Your task to perform on an android device: toggle data saver in the chrome app Image 0: 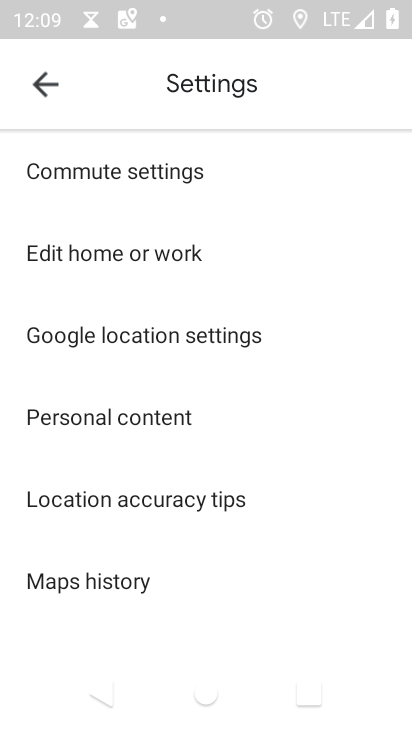
Step 0: press home button
Your task to perform on an android device: toggle data saver in the chrome app Image 1: 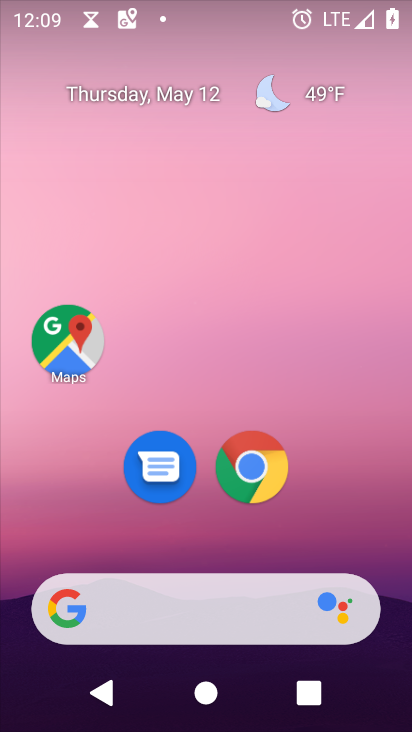
Step 1: drag from (241, 603) to (368, 194)
Your task to perform on an android device: toggle data saver in the chrome app Image 2: 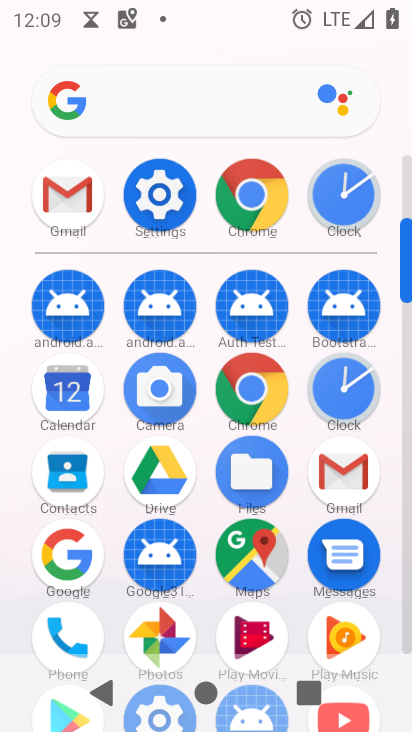
Step 2: click (255, 197)
Your task to perform on an android device: toggle data saver in the chrome app Image 3: 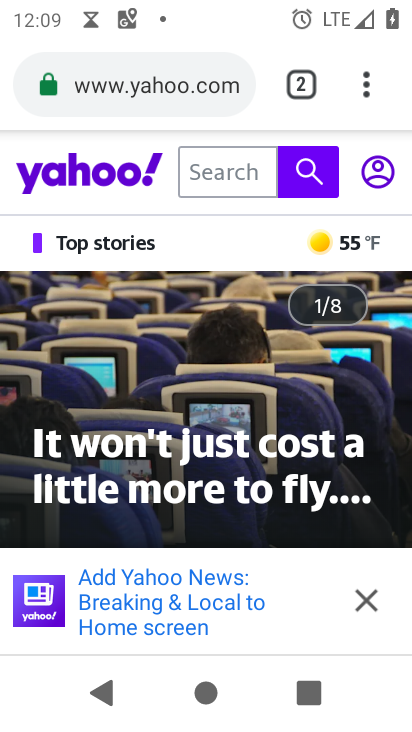
Step 3: click (367, 89)
Your task to perform on an android device: toggle data saver in the chrome app Image 4: 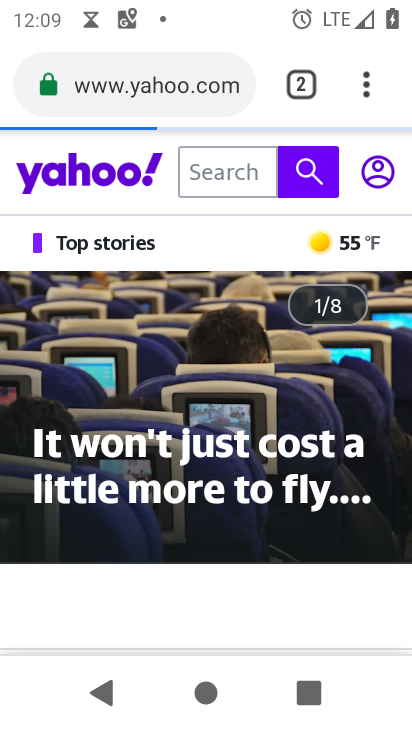
Step 4: drag from (367, 89) to (201, 537)
Your task to perform on an android device: toggle data saver in the chrome app Image 5: 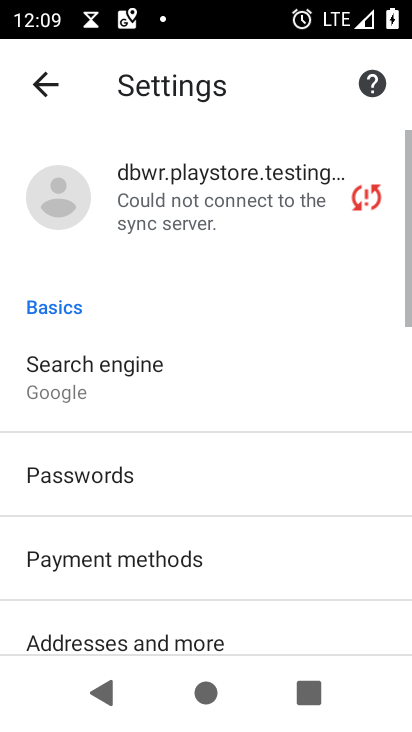
Step 5: drag from (187, 606) to (318, 188)
Your task to perform on an android device: toggle data saver in the chrome app Image 6: 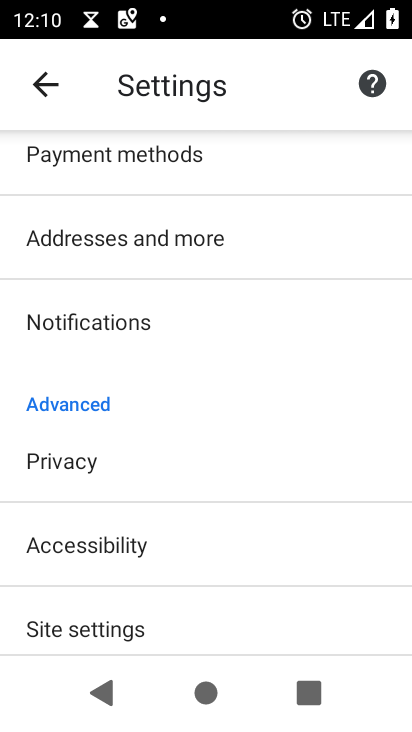
Step 6: drag from (205, 596) to (257, 181)
Your task to perform on an android device: toggle data saver in the chrome app Image 7: 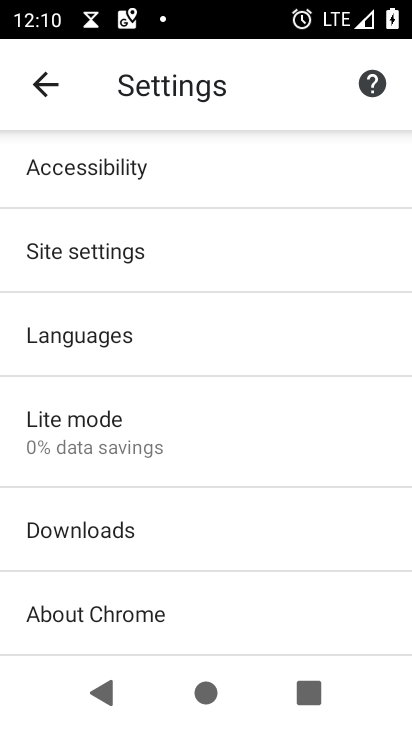
Step 7: click (163, 439)
Your task to perform on an android device: toggle data saver in the chrome app Image 8: 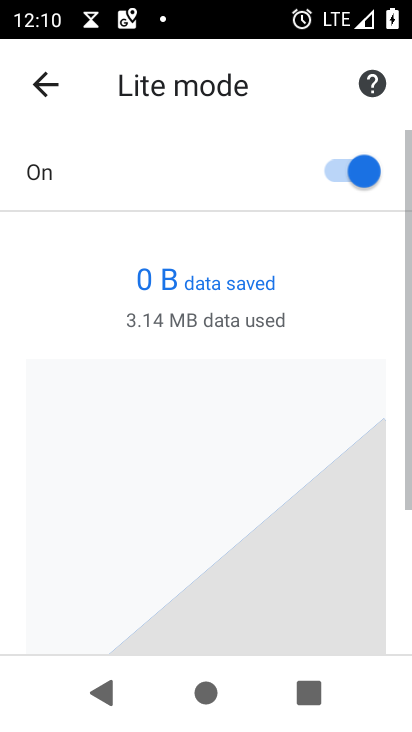
Step 8: click (339, 171)
Your task to perform on an android device: toggle data saver in the chrome app Image 9: 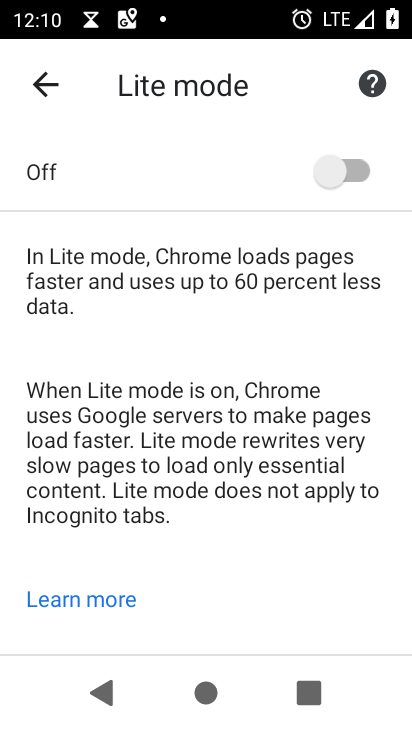
Step 9: task complete